Your task to perform on an android device: Search for vegetarian restaurants on Maps Image 0: 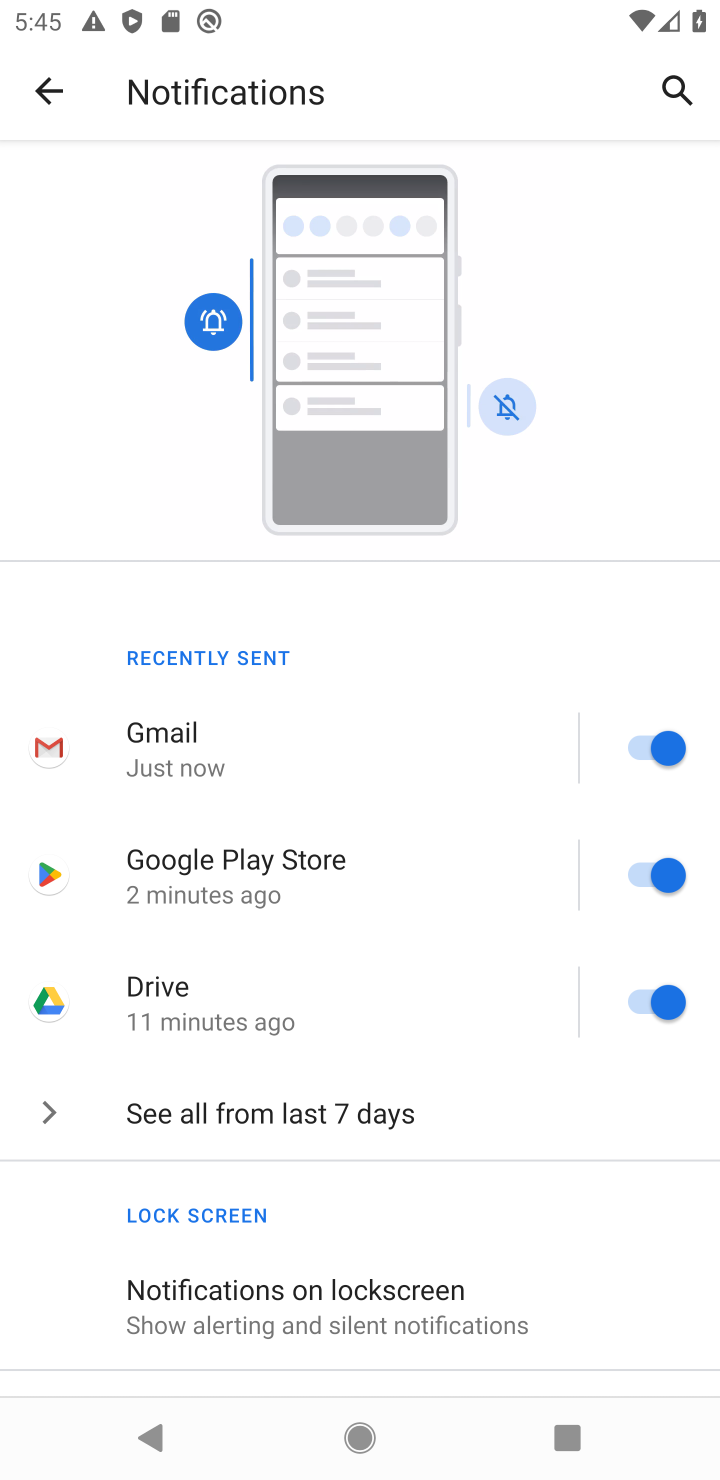
Step 0: press home button
Your task to perform on an android device: Search for vegetarian restaurants on Maps Image 1: 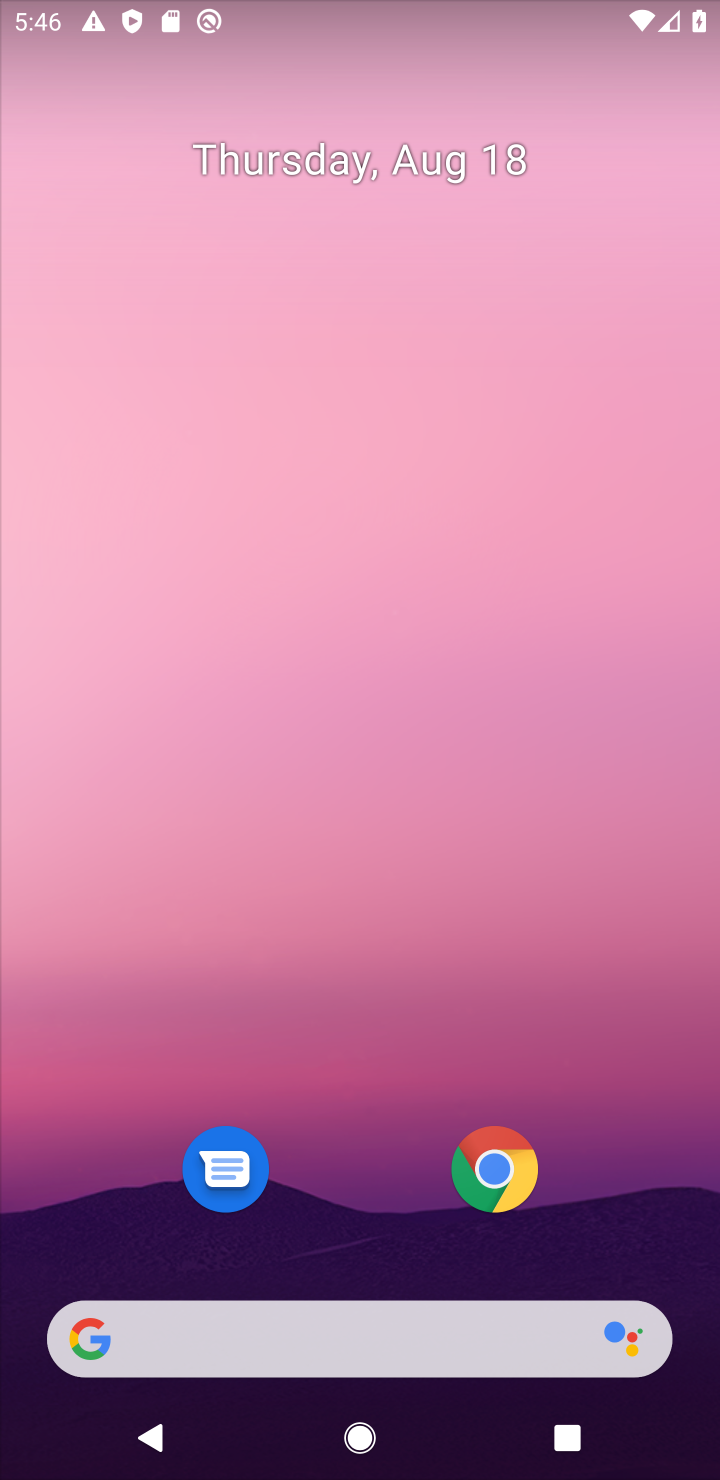
Step 1: drag from (393, 744) to (439, 0)
Your task to perform on an android device: Search for vegetarian restaurants on Maps Image 2: 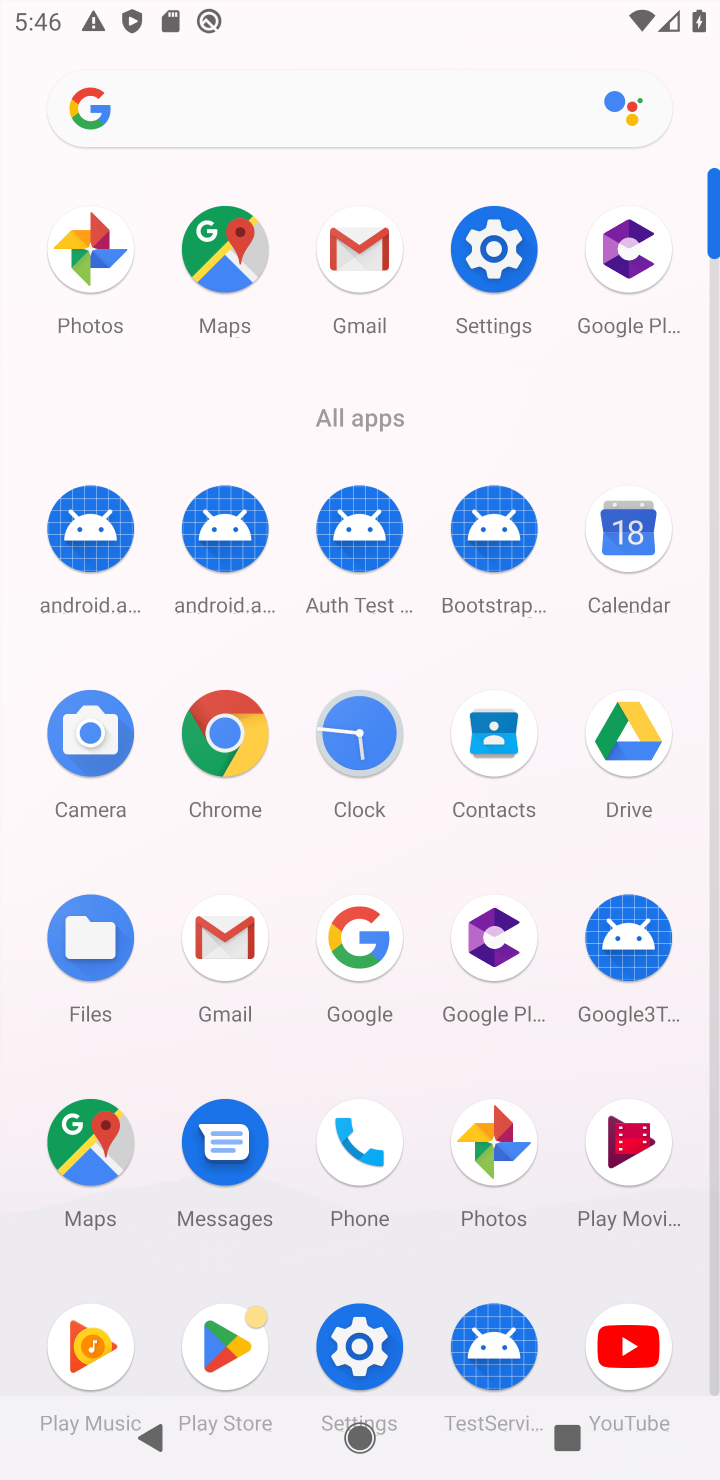
Step 2: click (188, 256)
Your task to perform on an android device: Search for vegetarian restaurants on Maps Image 3: 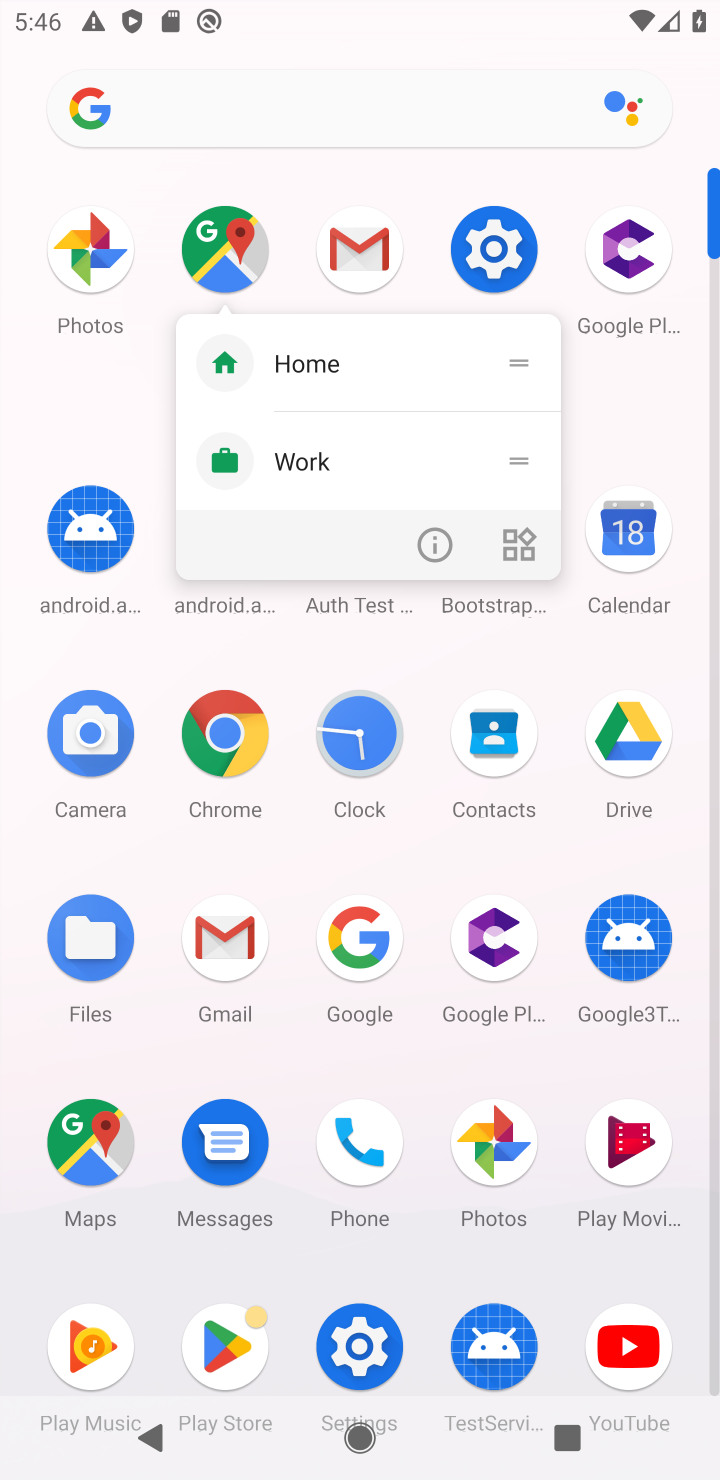
Step 3: click (219, 256)
Your task to perform on an android device: Search for vegetarian restaurants on Maps Image 4: 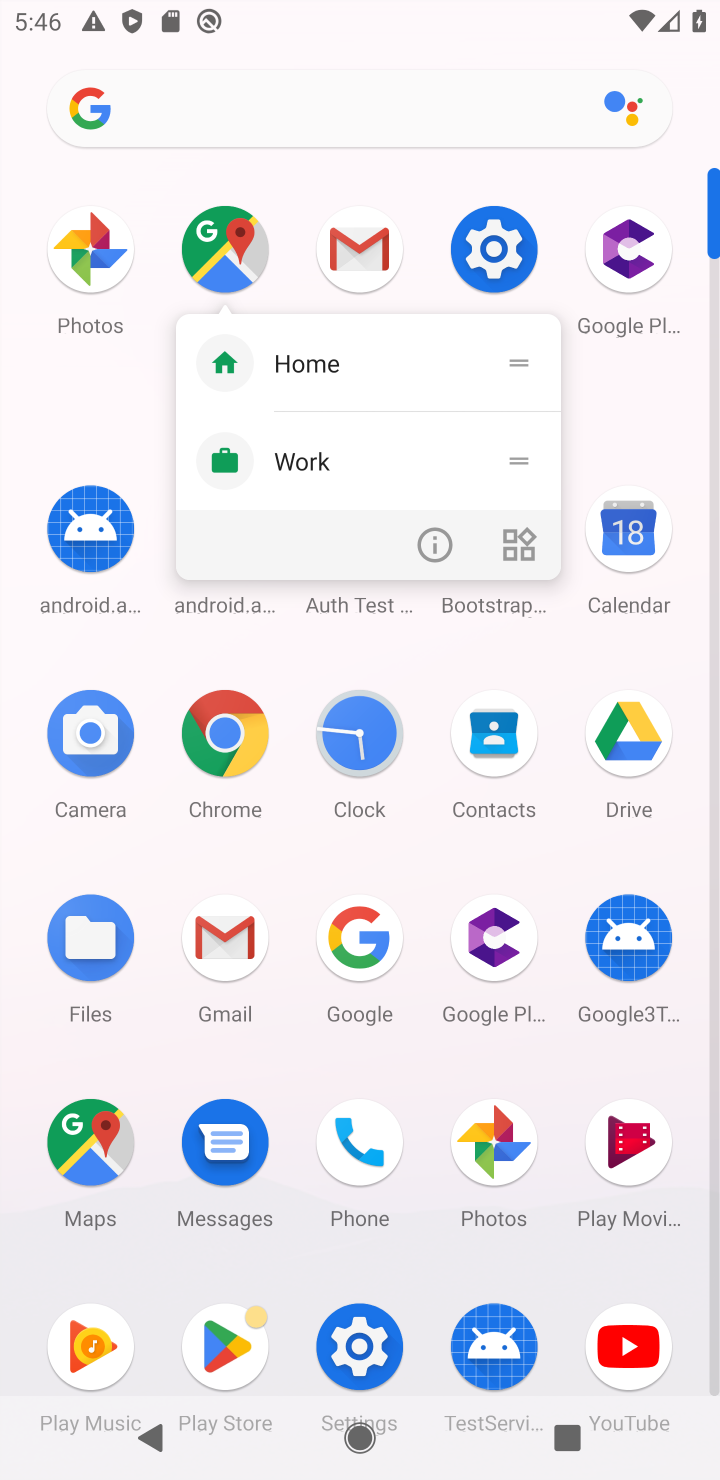
Step 4: click (231, 247)
Your task to perform on an android device: Search for vegetarian restaurants on Maps Image 5: 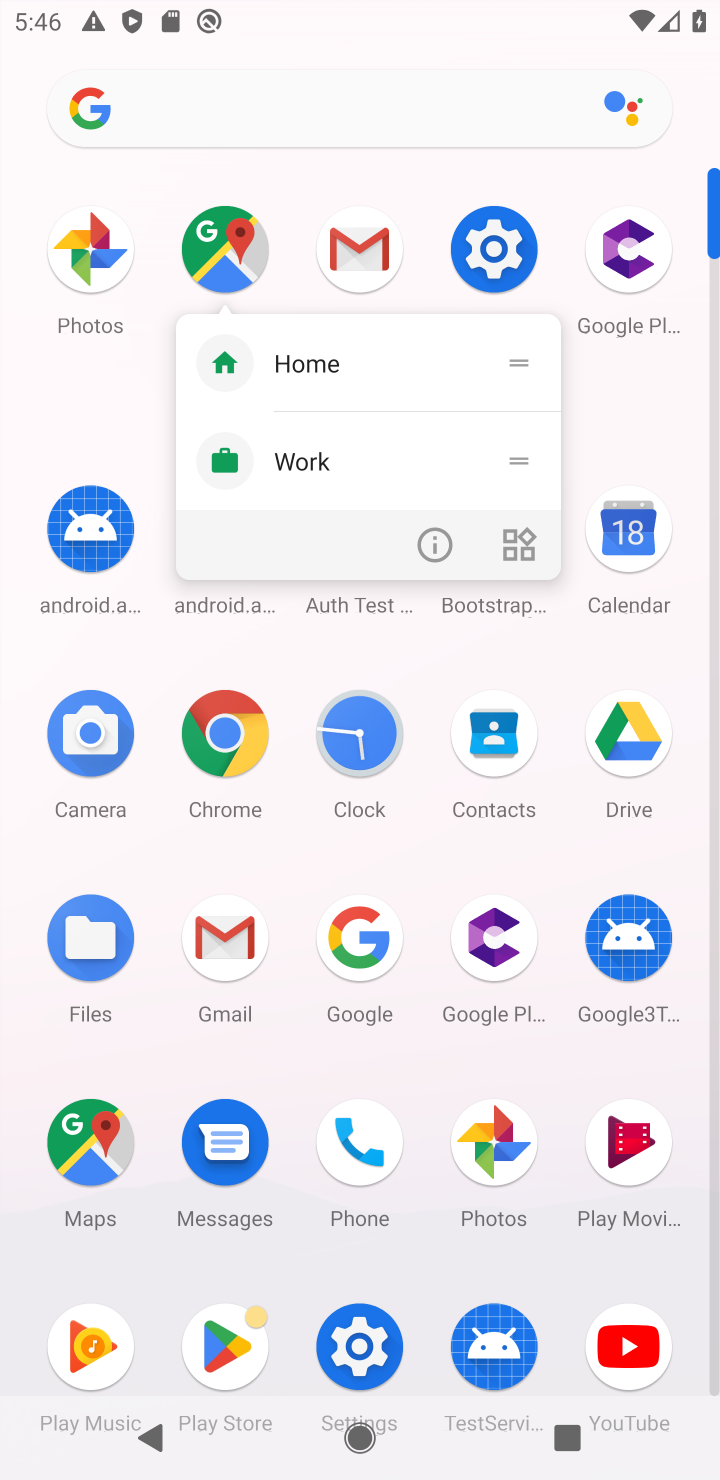
Step 5: click (231, 247)
Your task to perform on an android device: Search for vegetarian restaurants on Maps Image 6: 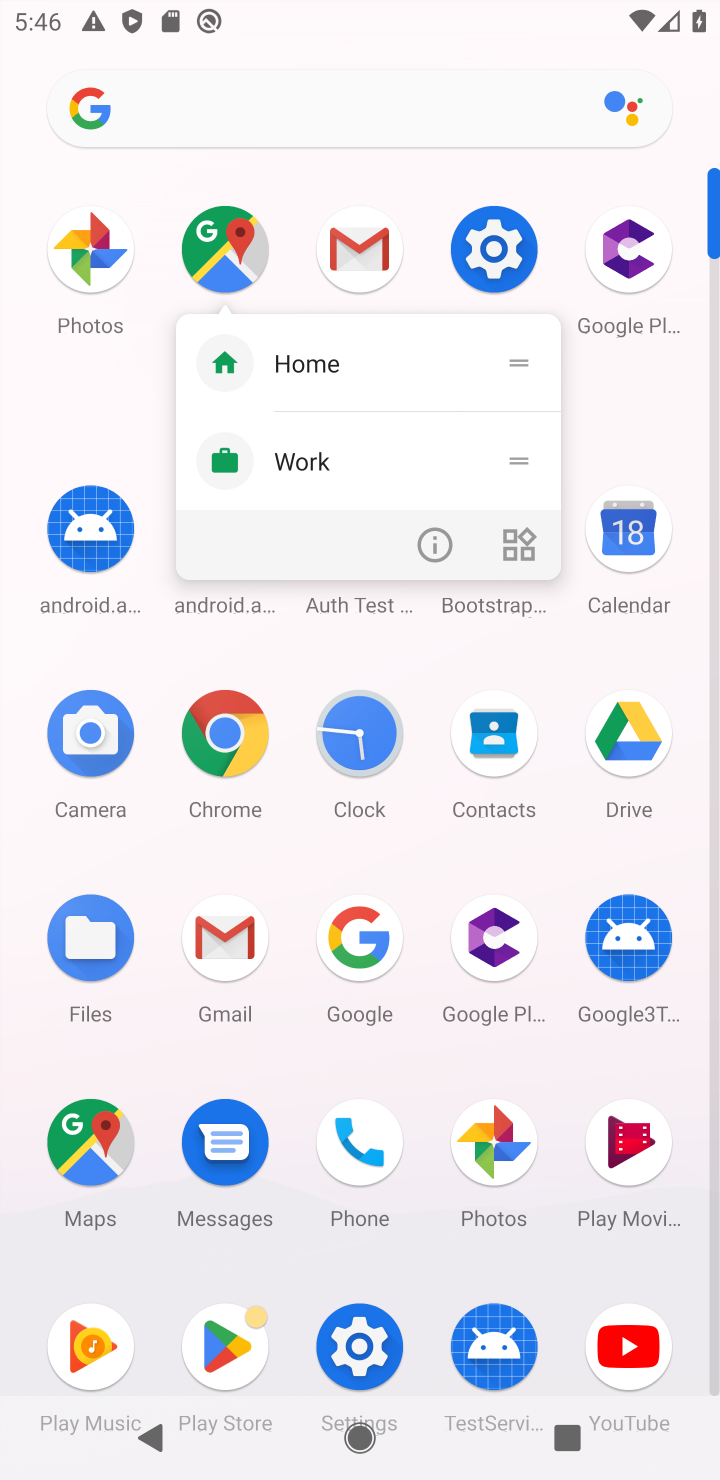
Step 6: click (254, 227)
Your task to perform on an android device: Search for vegetarian restaurants on Maps Image 7: 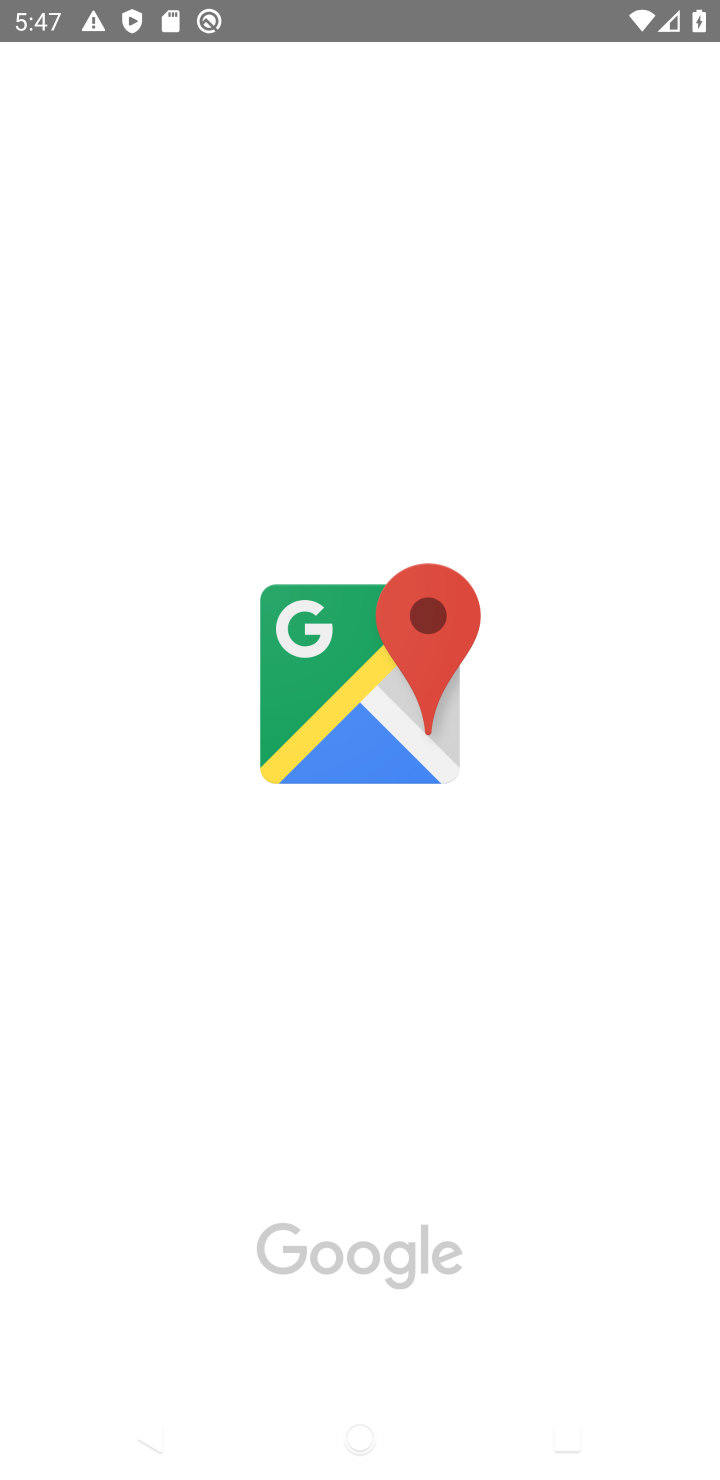
Step 7: task complete